Your task to perform on an android device: turn off airplane mode Image 0: 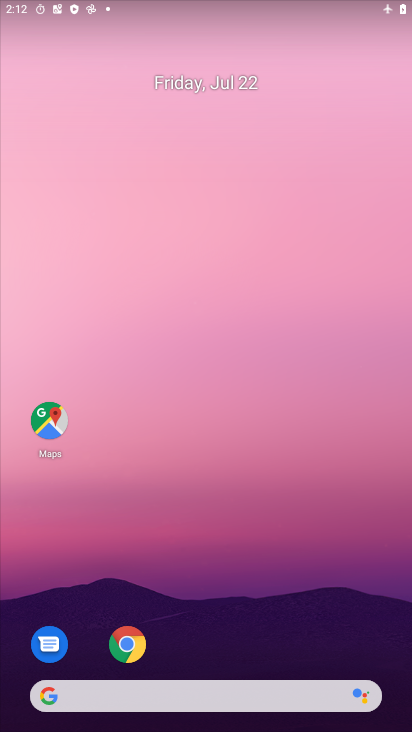
Step 0: drag from (197, 648) to (185, 36)
Your task to perform on an android device: turn off airplane mode Image 1: 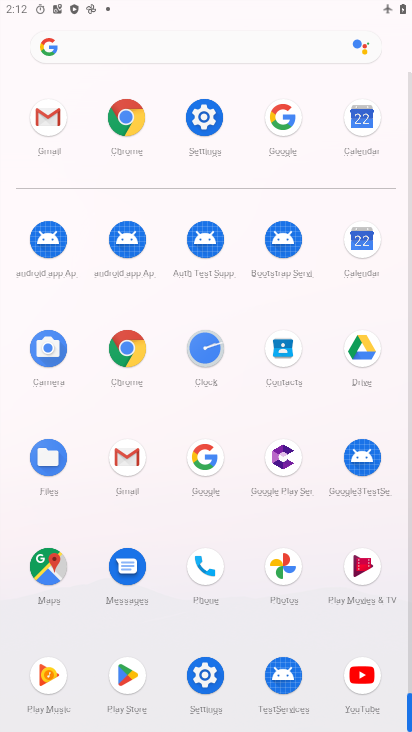
Step 1: click (205, 129)
Your task to perform on an android device: turn off airplane mode Image 2: 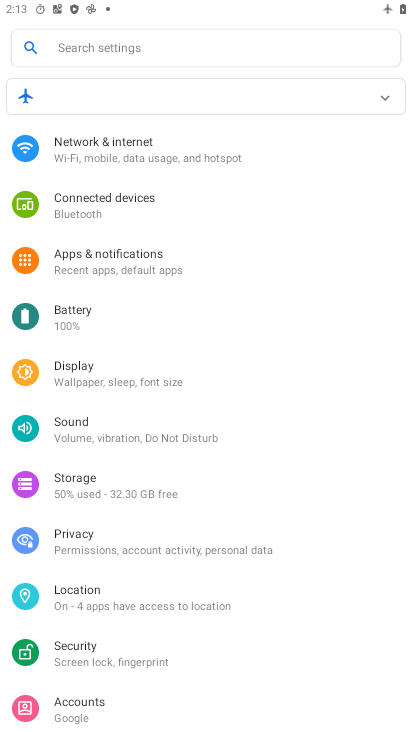
Step 2: click (161, 149)
Your task to perform on an android device: turn off airplane mode Image 3: 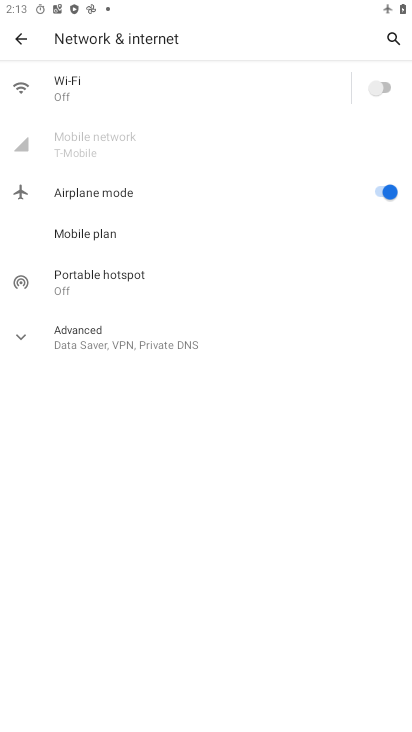
Step 3: click (207, 196)
Your task to perform on an android device: turn off airplane mode Image 4: 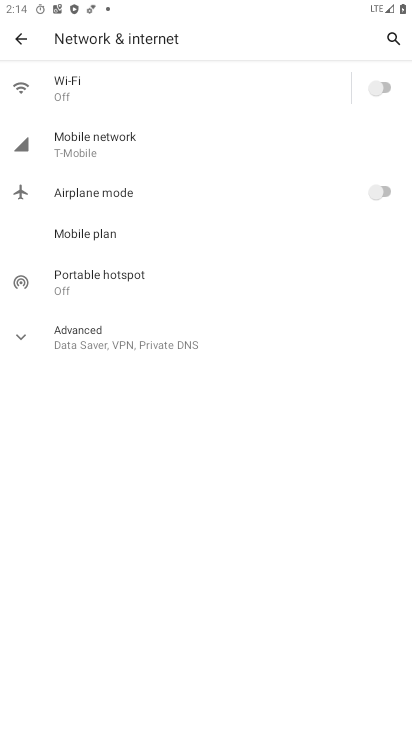
Step 4: task complete